Your task to perform on an android device: turn on translation in the chrome app Image 0: 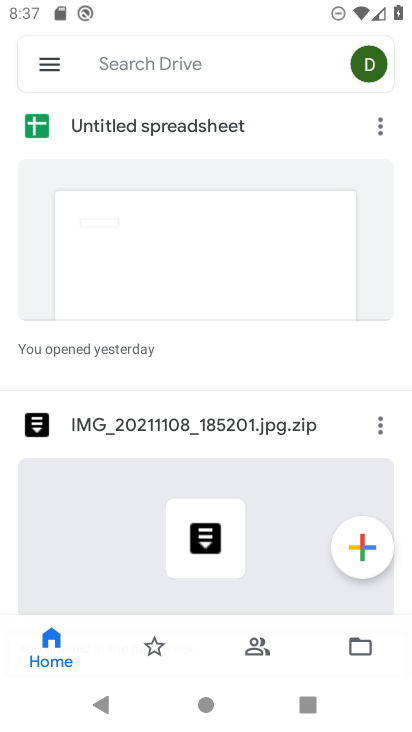
Step 0: press home button
Your task to perform on an android device: turn on translation in the chrome app Image 1: 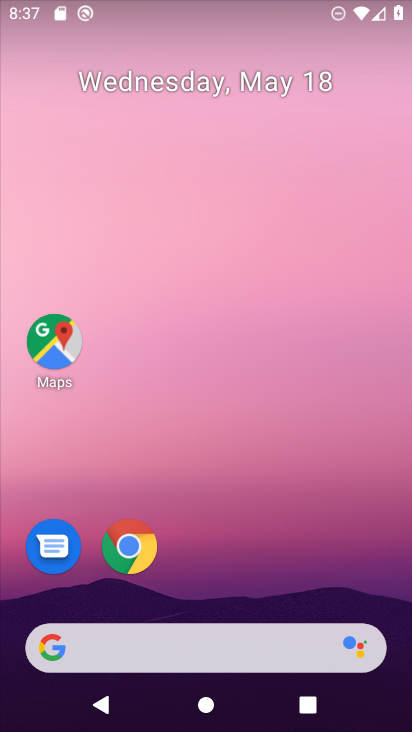
Step 1: drag from (256, 695) to (249, 157)
Your task to perform on an android device: turn on translation in the chrome app Image 2: 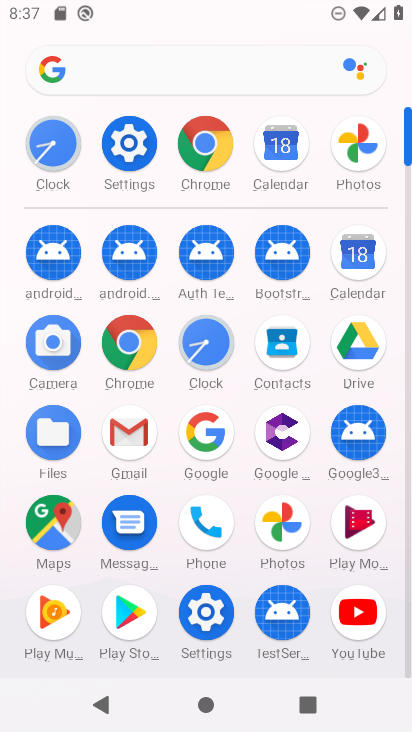
Step 2: click (127, 336)
Your task to perform on an android device: turn on translation in the chrome app Image 3: 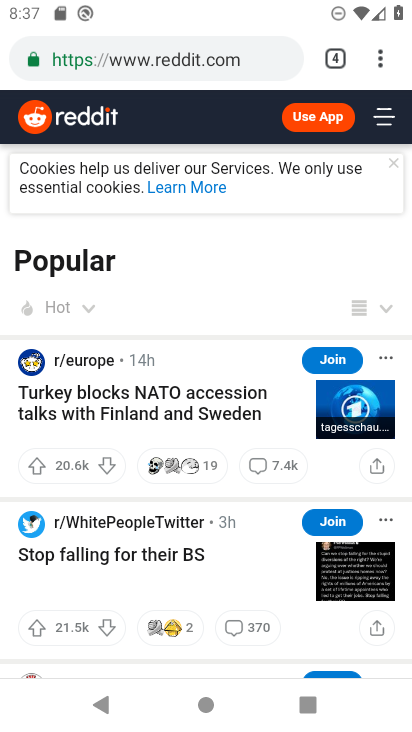
Step 3: click (378, 63)
Your task to perform on an android device: turn on translation in the chrome app Image 4: 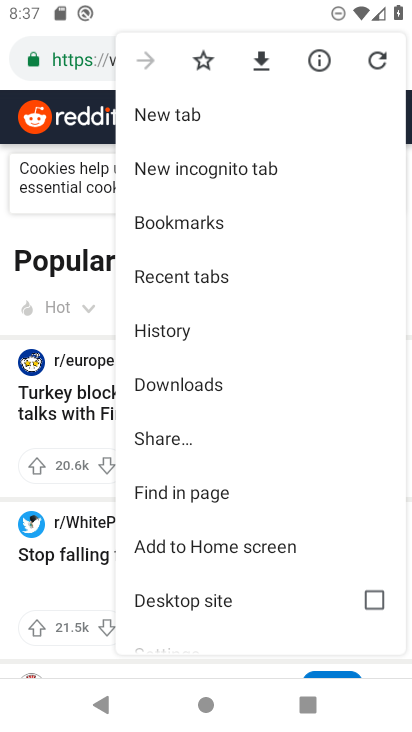
Step 4: drag from (182, 604) to (221, 372)
Your task to perform on an android device: turn on translation in the chrome app Image 5: 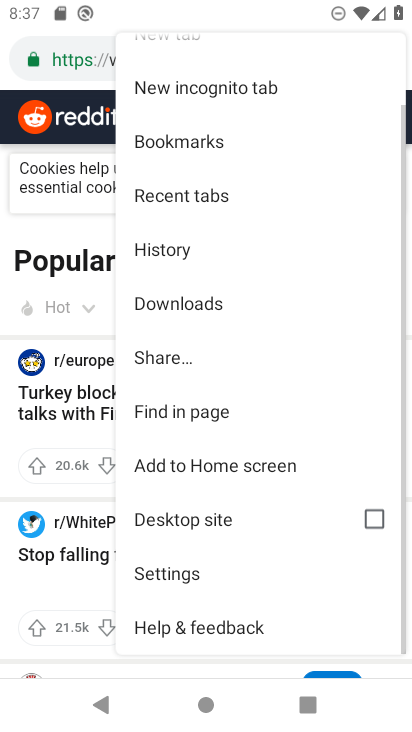
Step 5: click (161, 579)
Your task to perform on an android device: turn on translation in the chrome app Image 6: 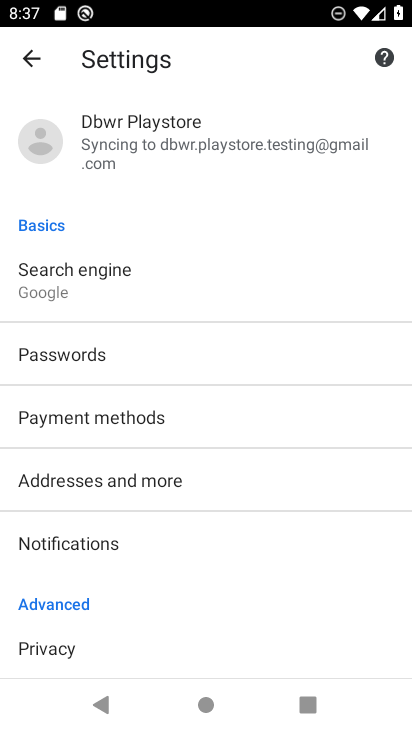
Step 6: drag from (180, 609) to (223, 337)
Your task to perform on an android device: turn on translation in the chrome app Image 7: 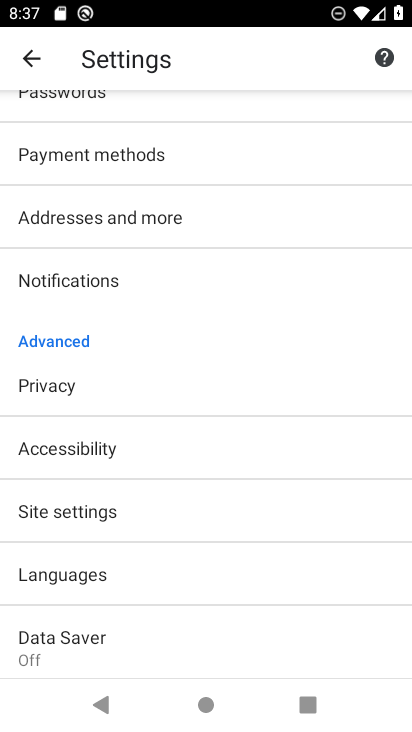
Step 7: click (116, 570)
Your task to perform on an android device: turn on translation in the chrome app Image 8: 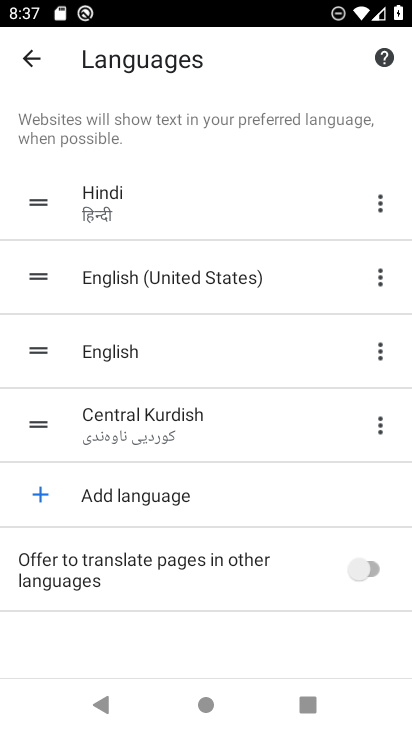
Step 8: click (254, 572)
Your task to perform on an android device: turn on translation in the chrome app Image 9: 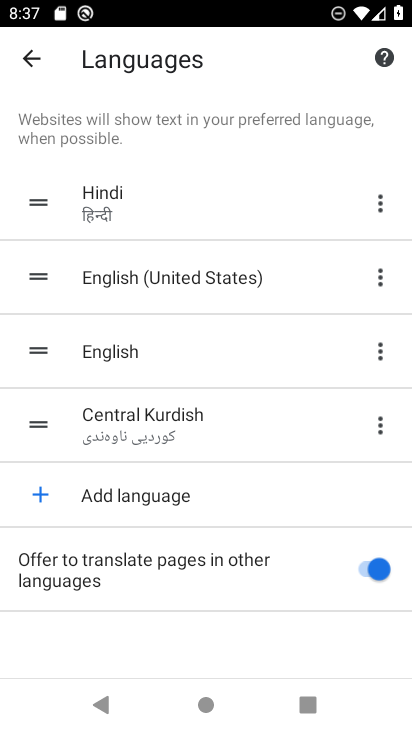
Step 9: task complete